Your task to perform on an android device: Open Google Maps and go to "Timeline" Image 0: 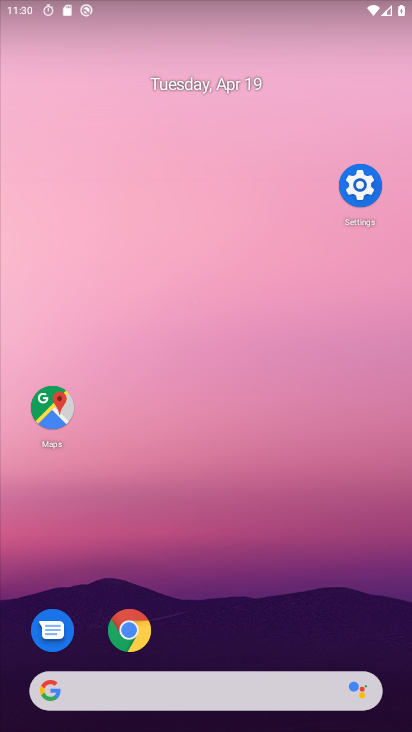
Step 0: drag from (261, 670) to (278, 400)
Your task to perform on an android device: Open Google Maps and go to "Timeline" Image 1: 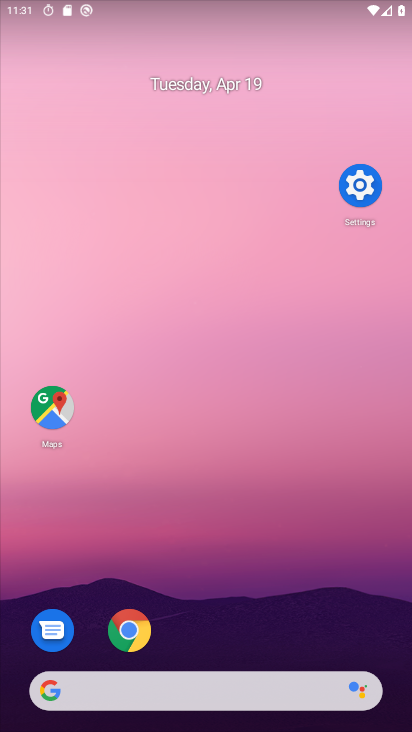
Step 1: drag from (286, 695) to (402, 252)
Your task to perform on an android device: Open Google Maps and go to "Timeline" Image 2: 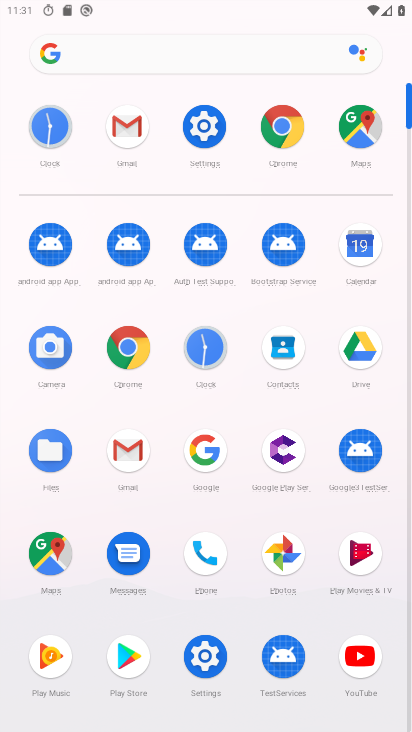
Step 2: click (61, 563)
Your task to perform on an android device: Open Google Maps and go to "Timeline" Image 3: 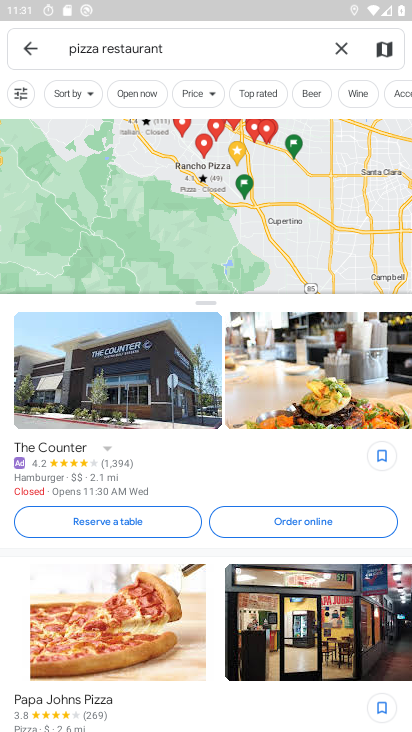
Step 3: click (37, 48)
Your task to perform on an android device: Open Google Maps and go to "Timeline" Image 4: 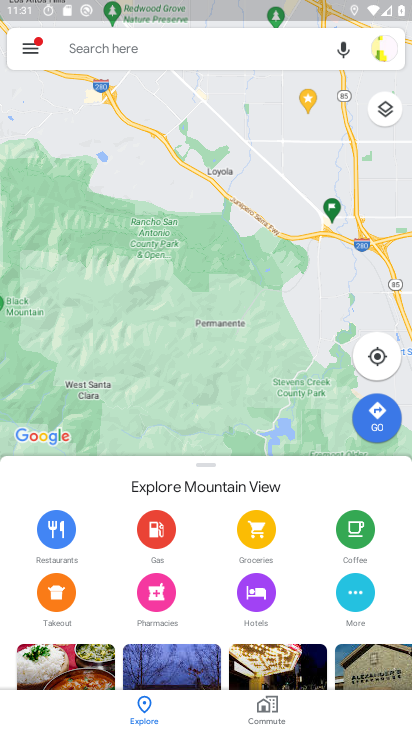
Step 4: click (36, 49)
Your task to perform on an android device: Open Google Maps and go to "Timeline" Image 5: 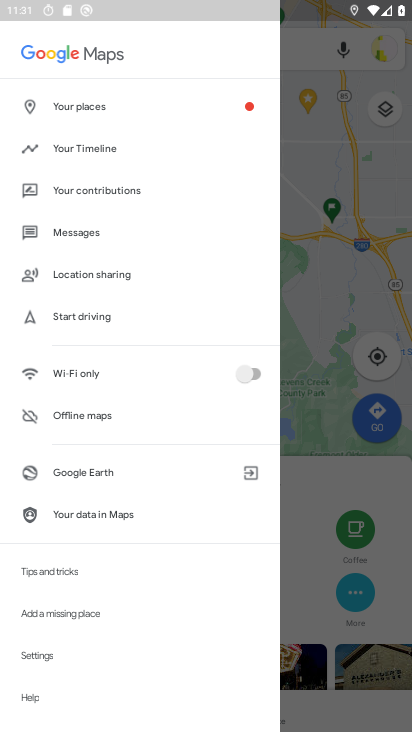
Step 5: click (155, 146)
Your task to perform on an android device: Open Google Maps and go to "Timeline" Image 6: 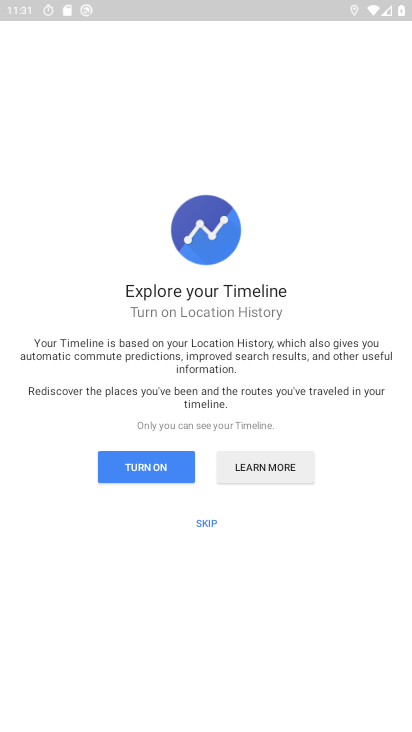
Step 6: click (201, 519)
Your task to perform on an android device: Open Google Maps and go to "Timeline" Image 7: 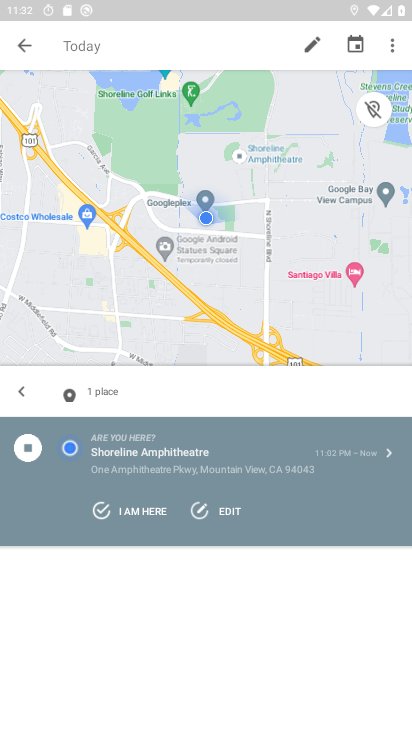
Step 7: task complete